Your task to perform on an android device: Go to Google Image 0: 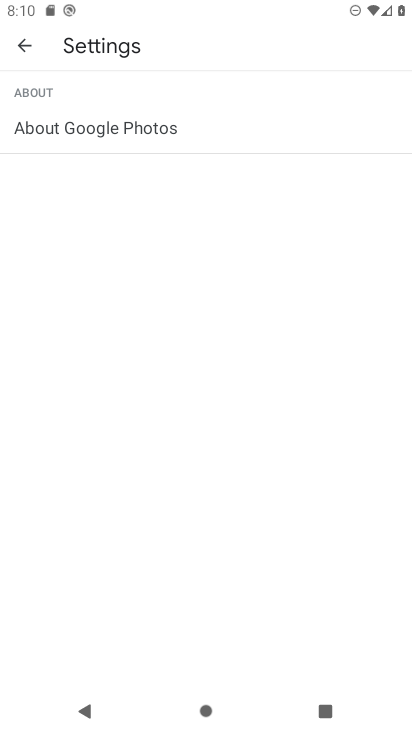
Step 0: press home button
Your task to perform on an android device: Go to Google Image 1: 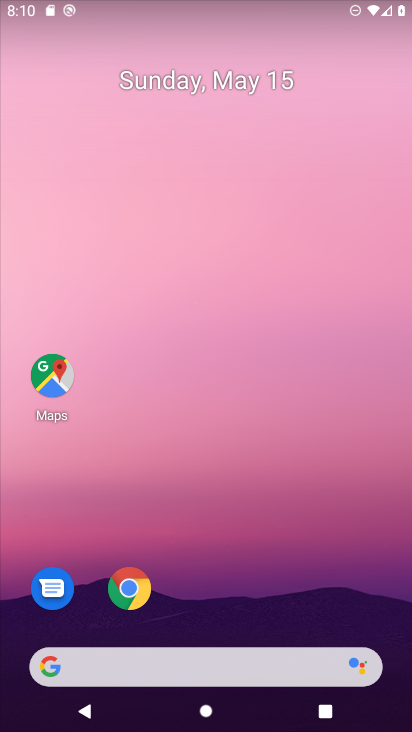
Step 1: drag from (210, 620) to (188, 57)
Your task to perform on an android device: Go to Google Image 2: 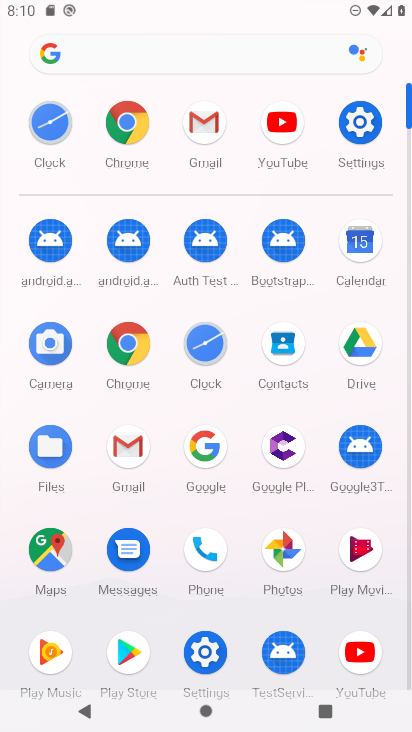
Step 2: click (203, 438)
Your task to perform on an android device: Go to Google Image 3: 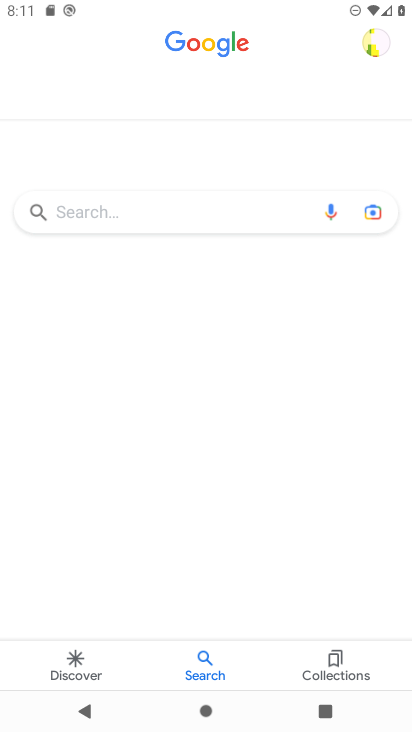
Step 3: task complete